Your task to perform on an android device: toggle translation in the chrome app Image 0: 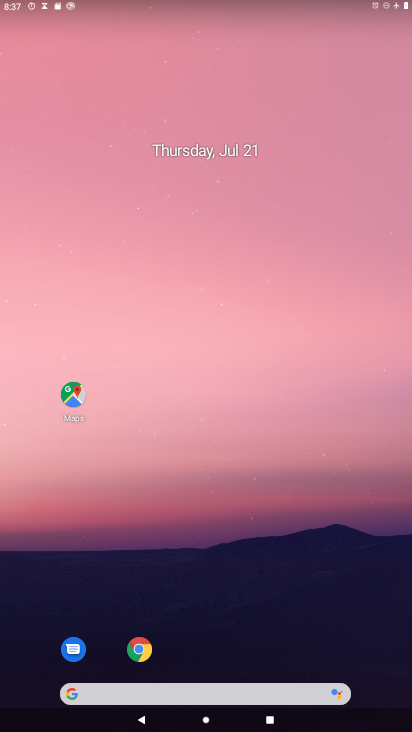
Step 0: drag from (362, 683) to (166, 42)
Your task to perform on an android device: toggle translation in the chrome app Image 1: 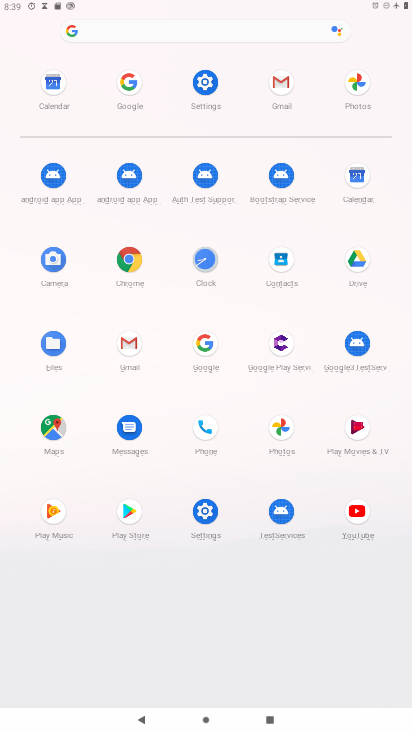
Step 1: click (129, 247)
Your task to perform on an android device: toggle translation in the chrome app Image 2: 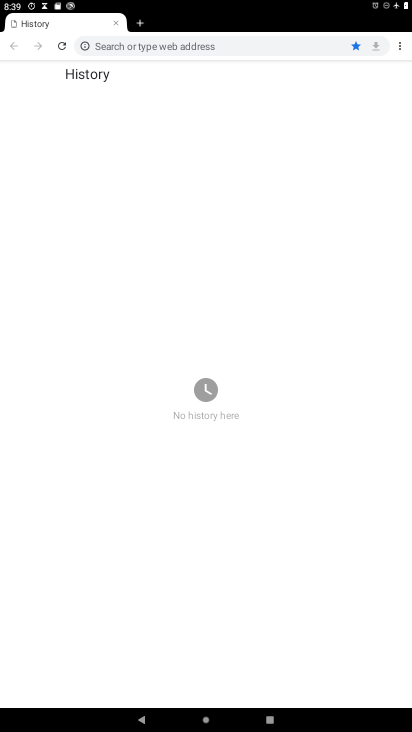
Step 2: click (401, 43)
Your task to perform on an android device: toggle translation in the chrome app Image 3: 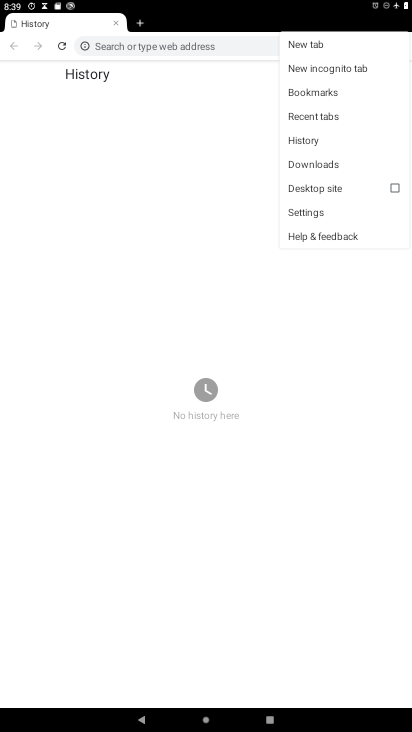
Step 3: click (300, 214)
Your task to perform on an android device: toggle translation in the chrome app Image 4: 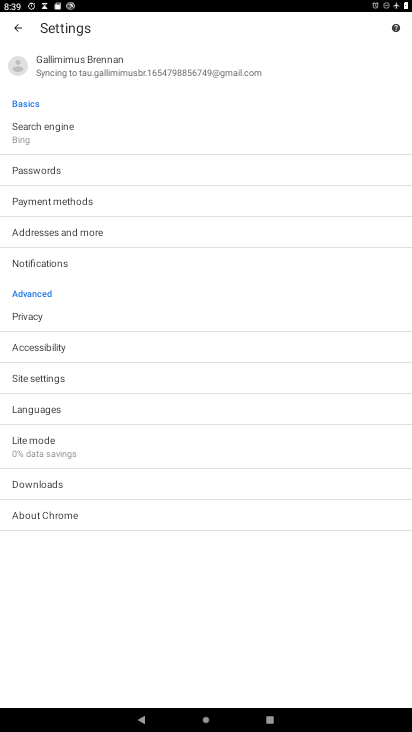
Step 4: click (42, 418)
Your task to perform on an android device: toggle translation in the chrome app Image 5: 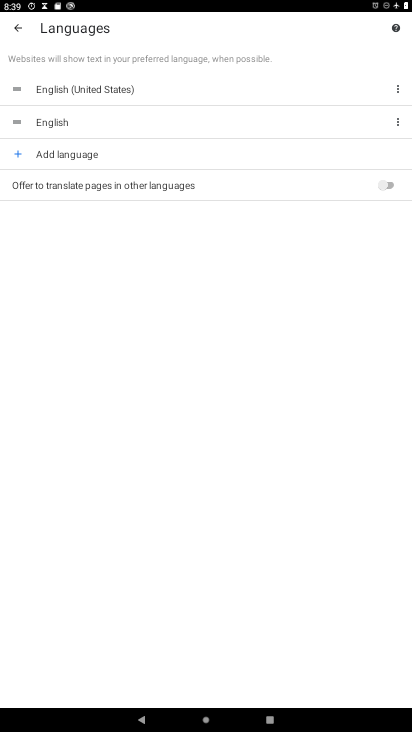
Step 5: click (394, 190)
Your task to perform on an android device: toggle translation in the chrome app Image 6: 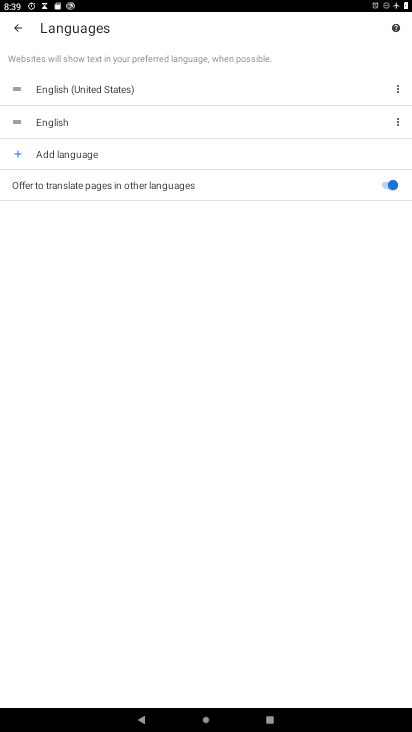
Step 6: task complete